Your task to perform on an android device: Open the calendar app, open the side menu, and click the "Day" option Image 0: 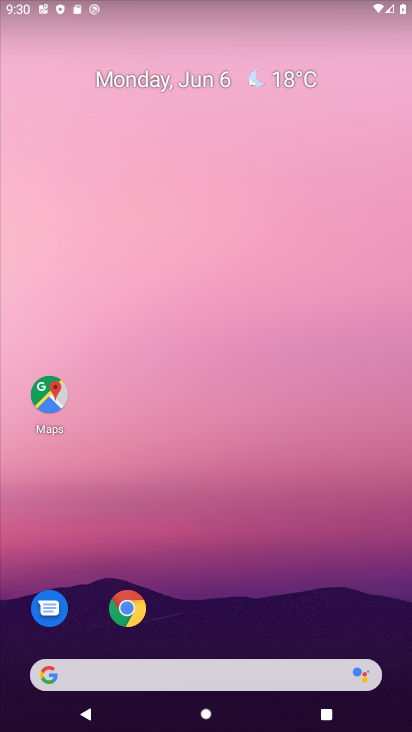
Step 0: drag from (285, 620) to (165, 282)
Your task to perform on an android device: Open the calendar app, open the side menu, and click the "Day" option Image 1: 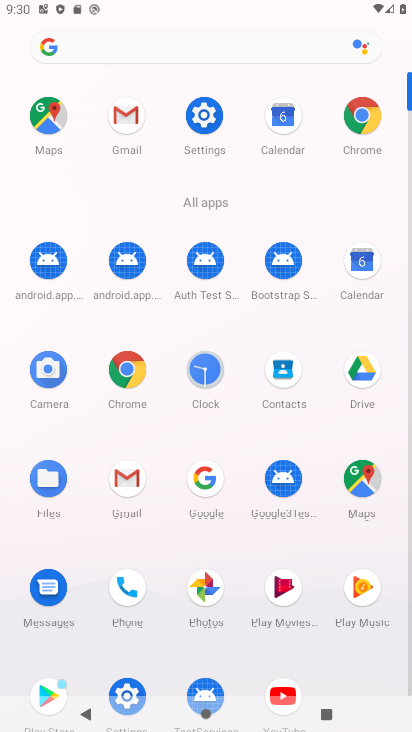
Step 1: click (359, 261)
Your task to perform on an android device: Open the calendar app, open the side menu, and click the "Day" option Image 2: 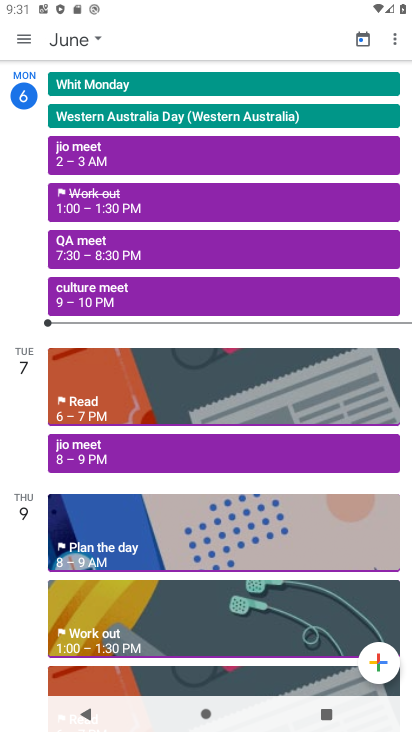
Step 2: click (21, 36)
Your task to perform on an android device: Open the calendar app, open the side menu, and click the "Day" option Image 3: 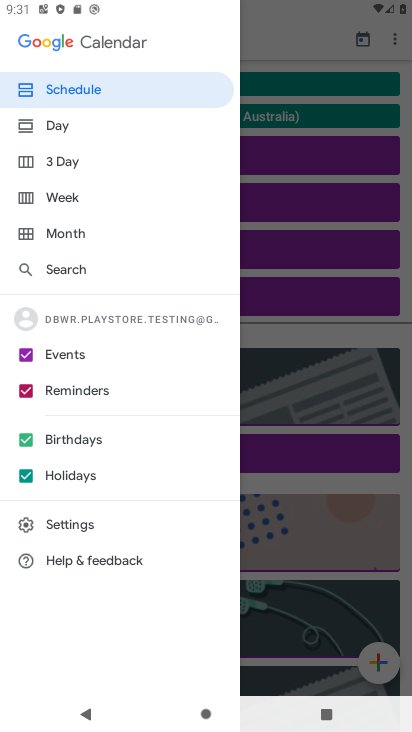
Step 3: click (48, 126)
Your task to perform on an android device: Open the calendar app, open the side menu, and click the "Day" option Image 4: 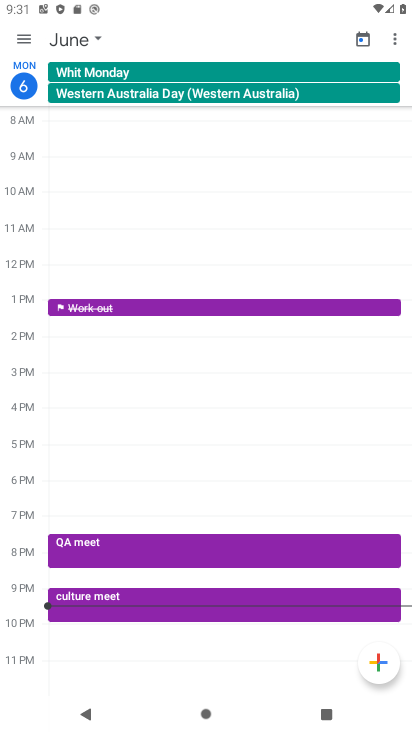
Step 4: task complete